Your task to perform on an android device: install app "Mercado Libre" Image 0: 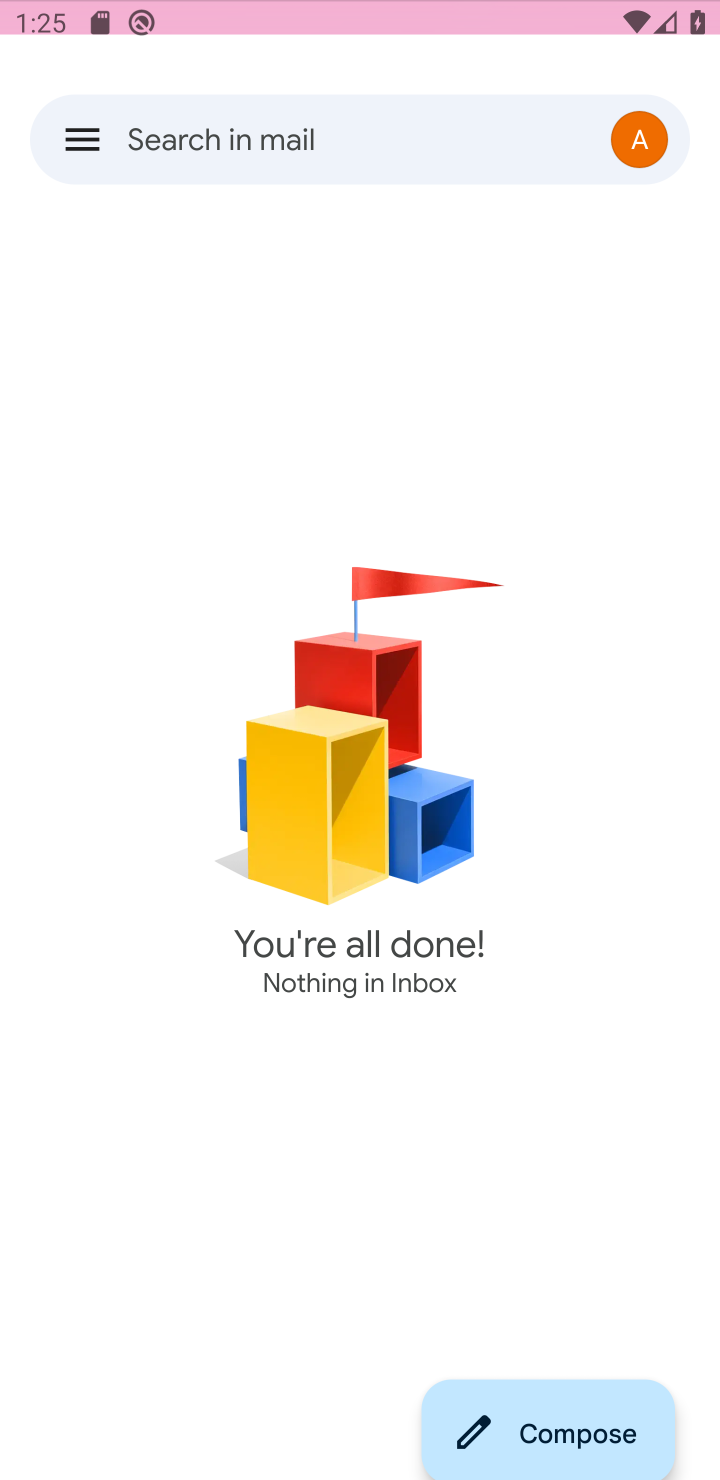
Step 0: click (259, 361)
Your task to perform on an android device: install app "Mercado Libre" Image 1: 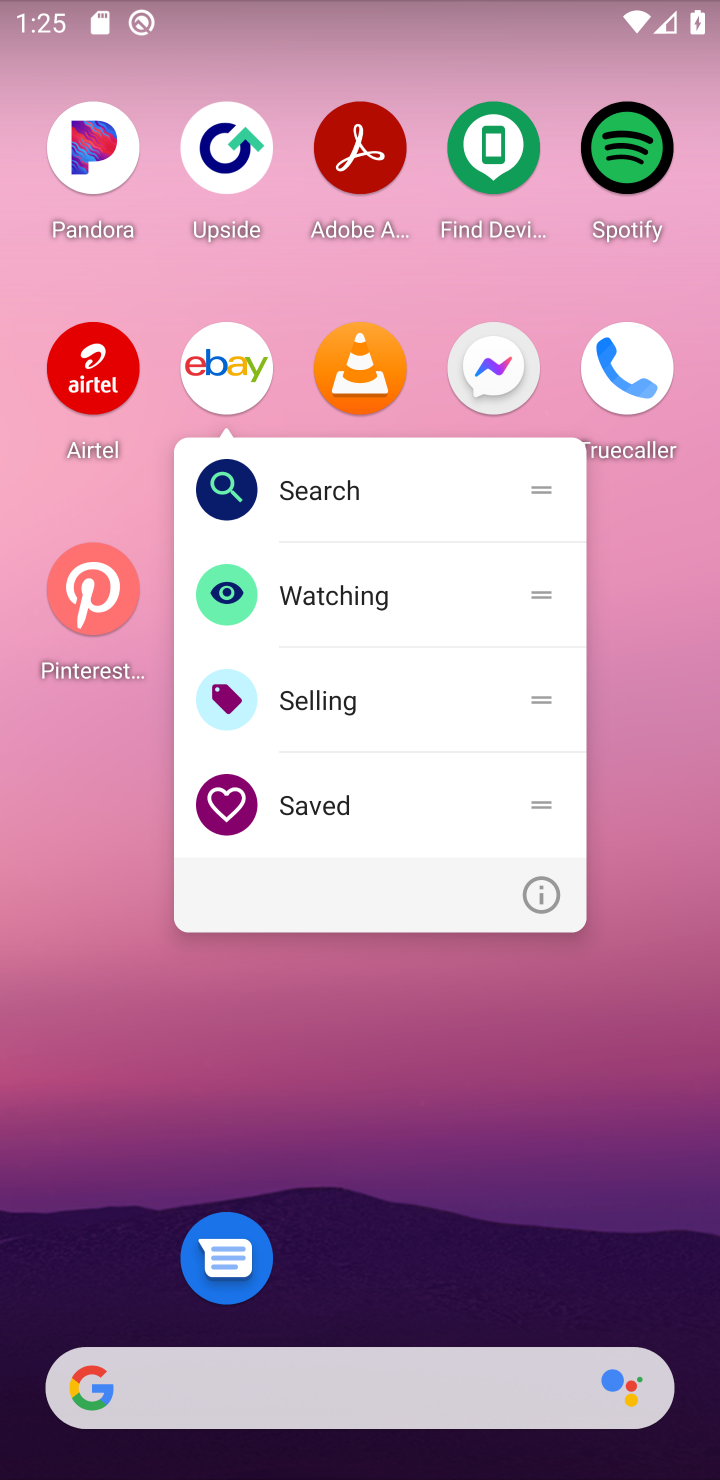
Step 1: drag from (363, 1261) to (479, 503)
Your task to perform on an android device: install app "Mercado Libre" Image 2: 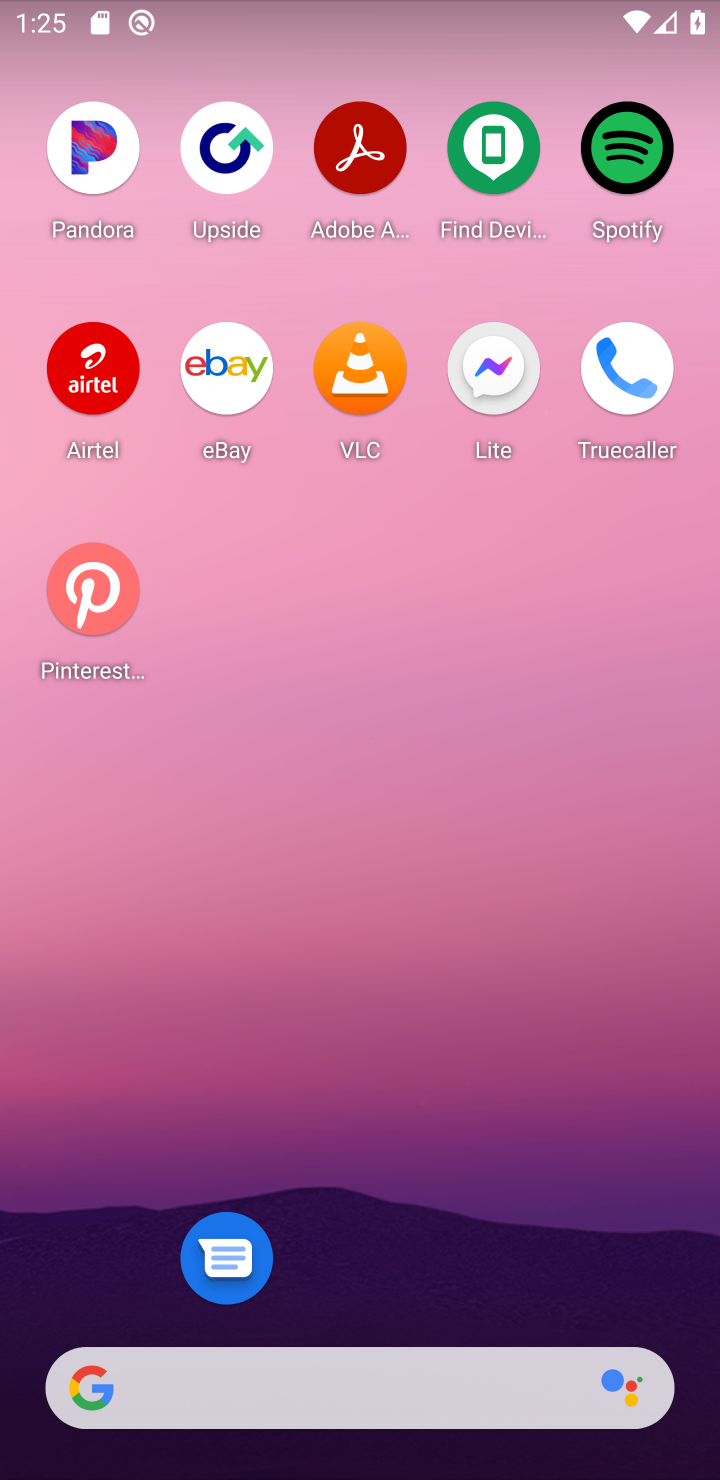
Step 2: drag from (206, 1175) to (492, 420)
Your task to perform on an android device: install app "Mercado Libre" Image 3: 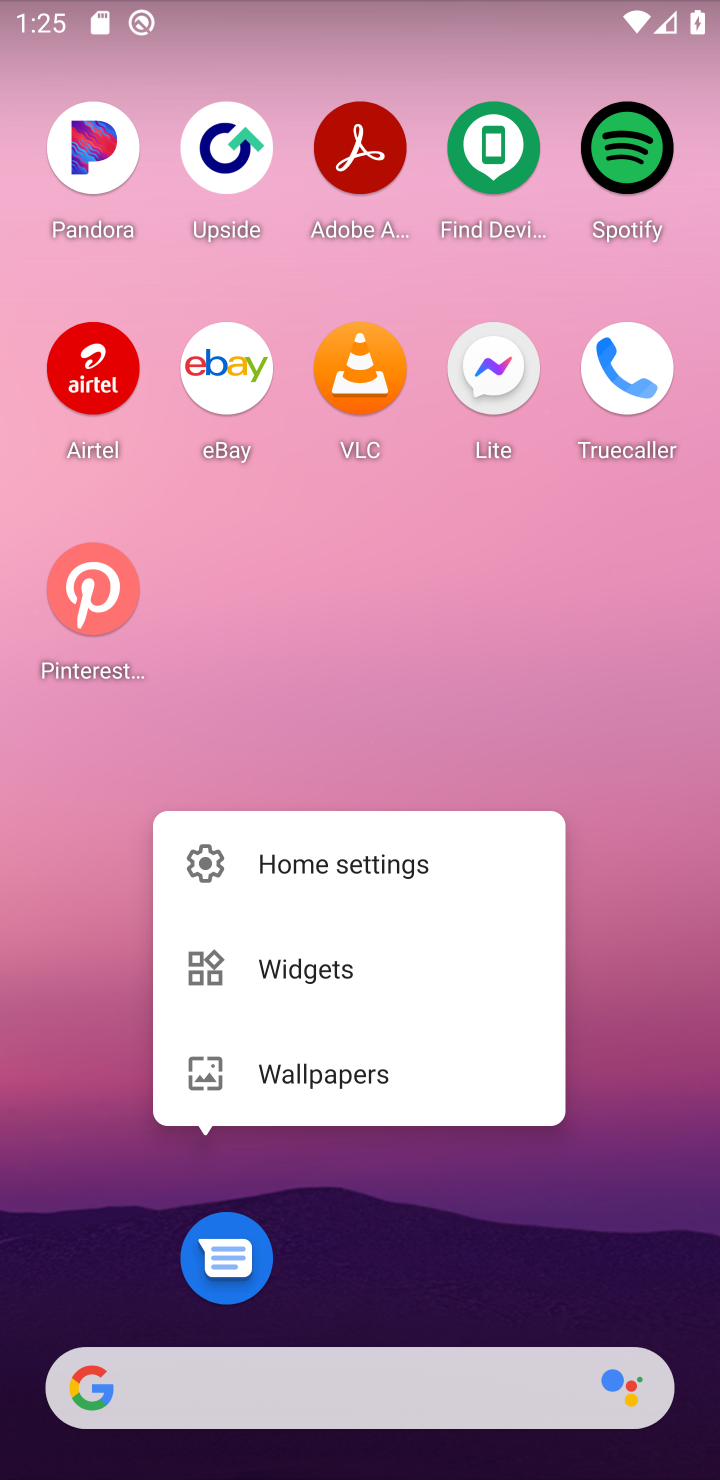
Step 3: click (292, 1156)
Your task to perform on an android device: install app "Mercado Libre" Image 4: 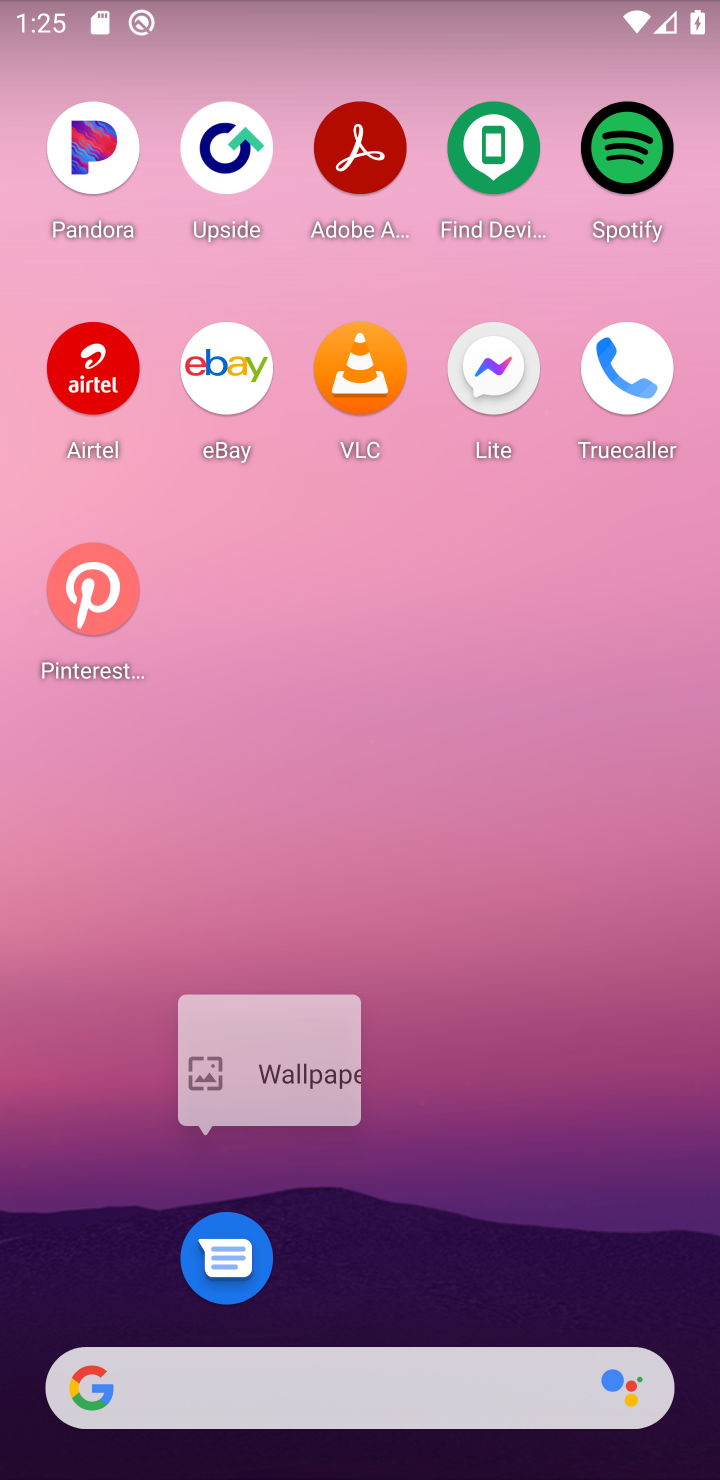
Step 4: drag from (364, 1265) to (554, 359)
Your task to perform on an android device: install app "Mercado Libre" Image 5: 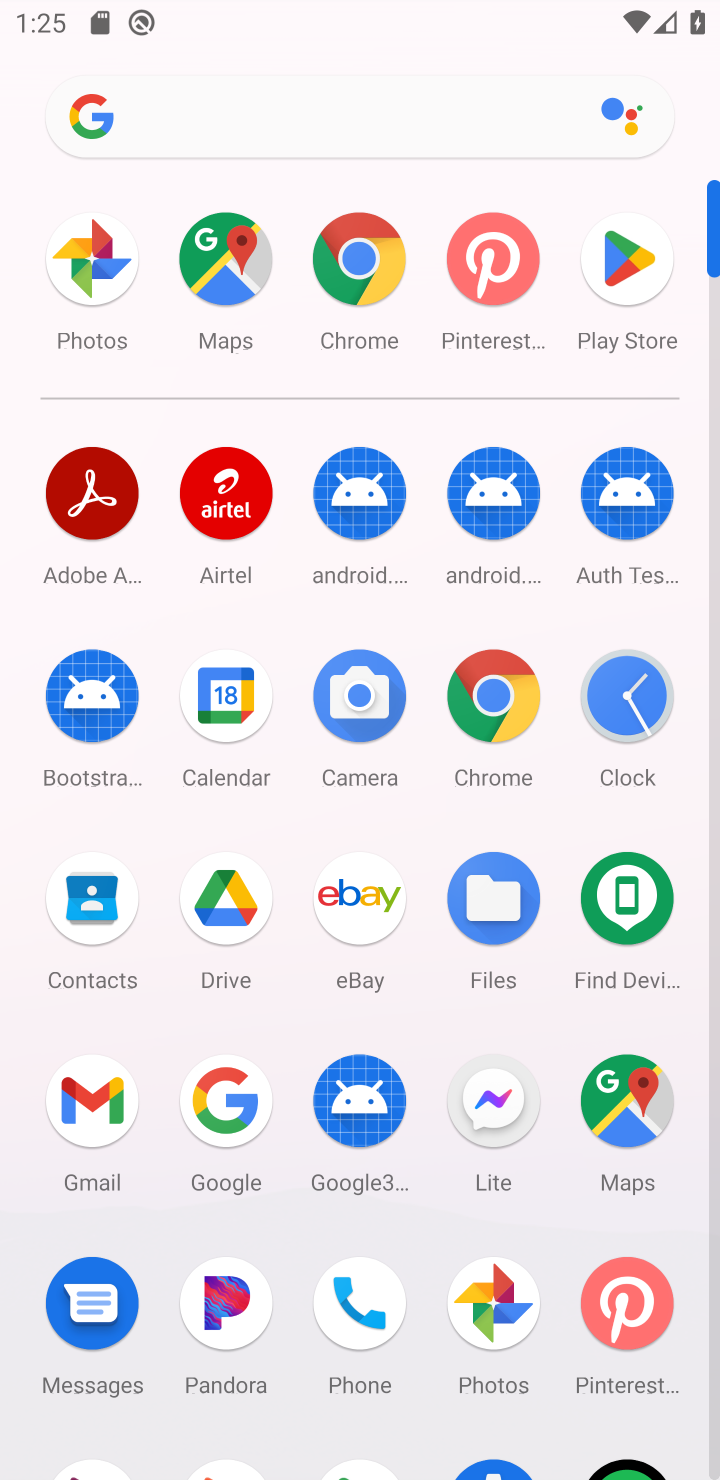
Step 5: click (593, 244)
Your task to perform on an android device: install app "Mercado Libre" Image 6: 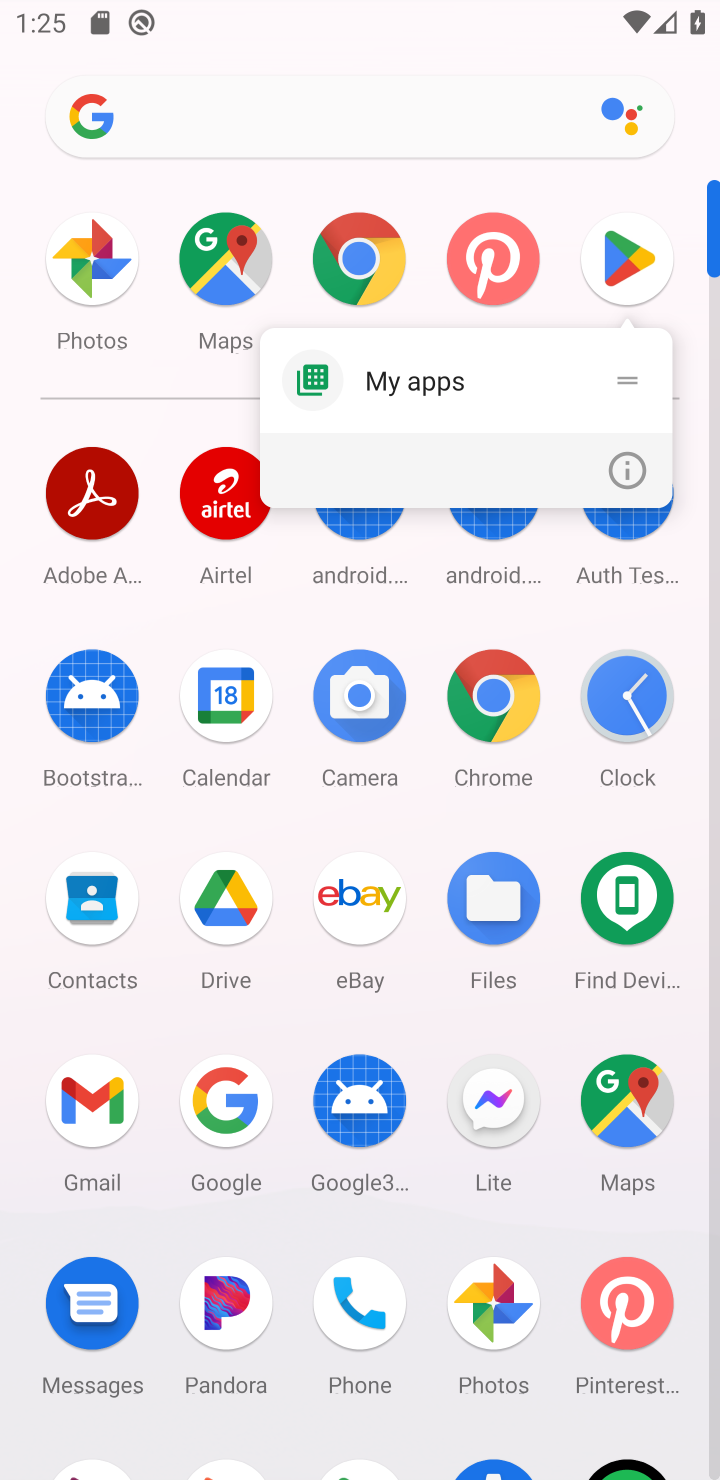
Step 6: click (611, 261)
Your task to perform on an android device: install app "Mercado Libre" Image 7: 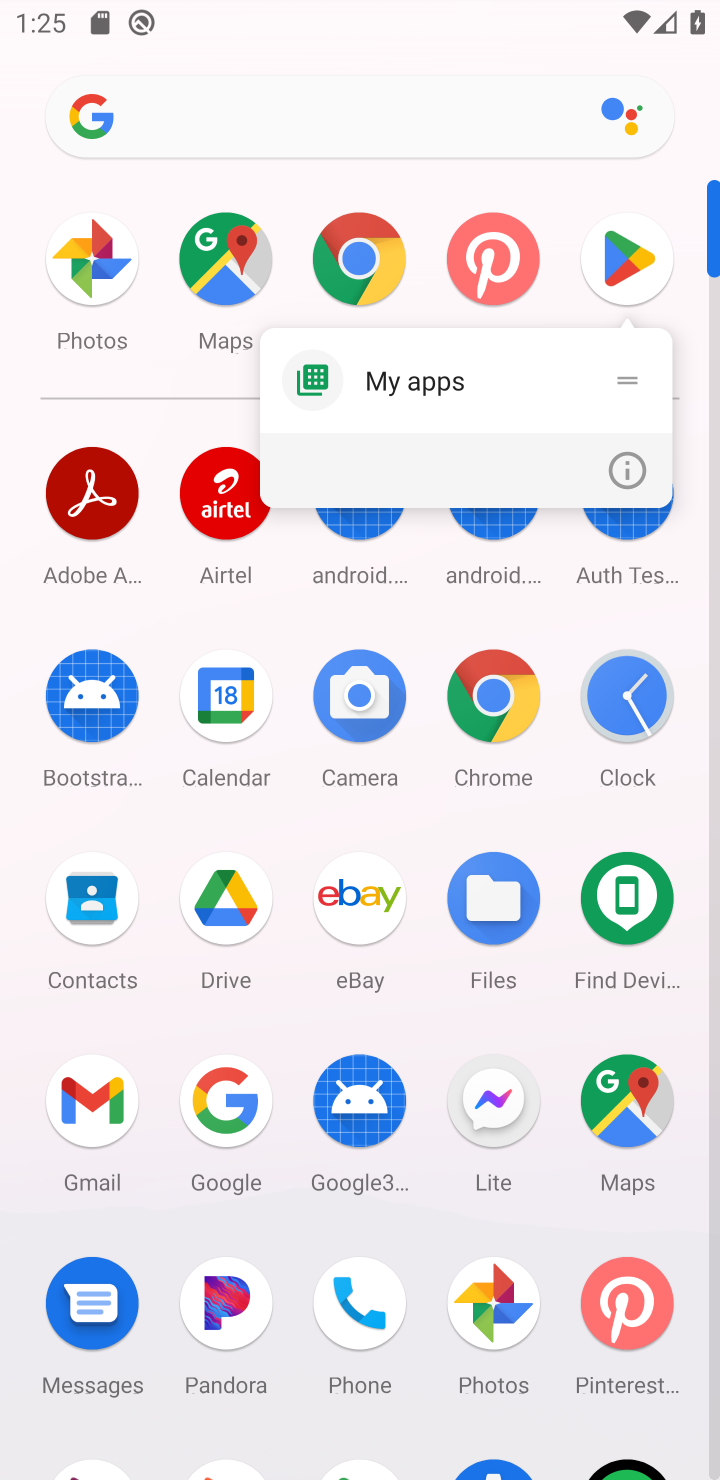
Step 7: drag from (202, 1147) to (380, 411)
Your task to perform on an android device: install app "Mercado Libre" Image 8: 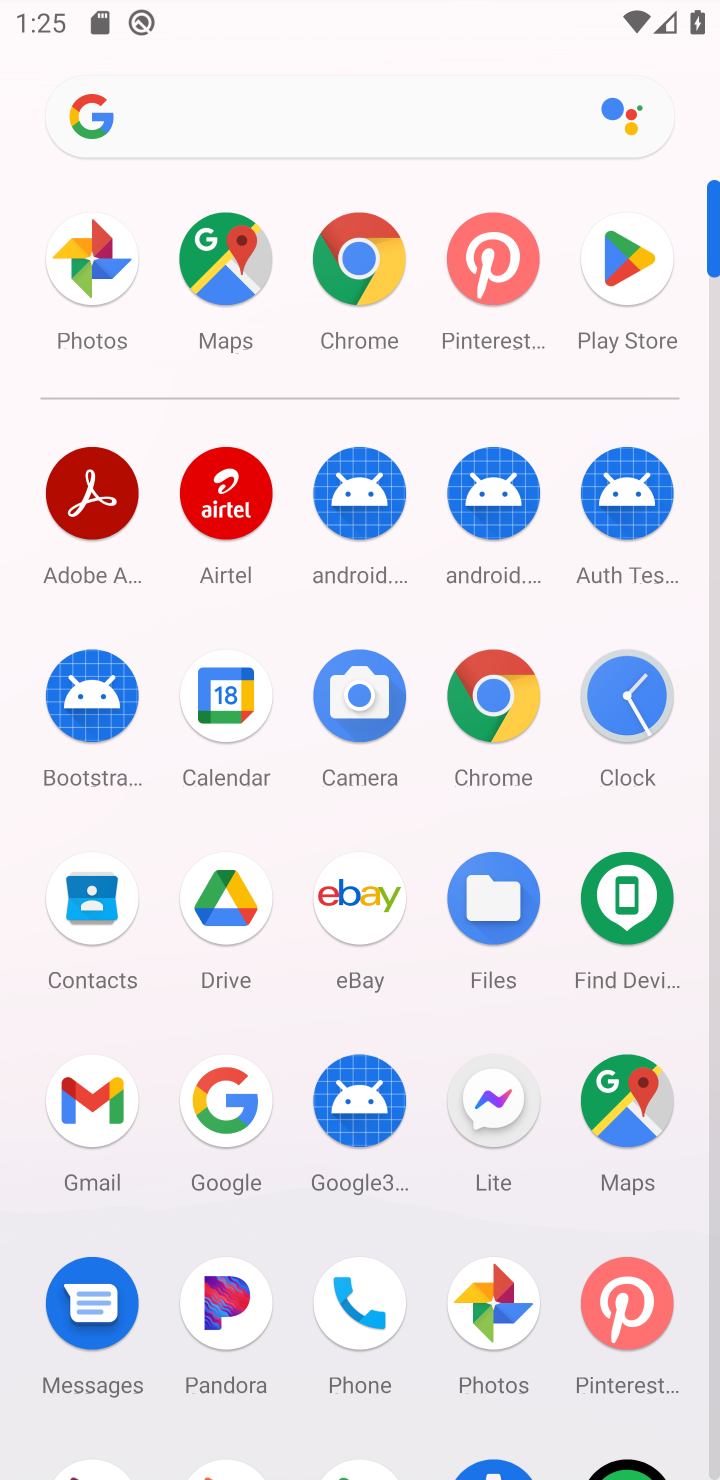
Step 8: drag from (337, 1200) to (471, 323)
Your task to perform on an android device: install app "Mercado Libre" Image 9: 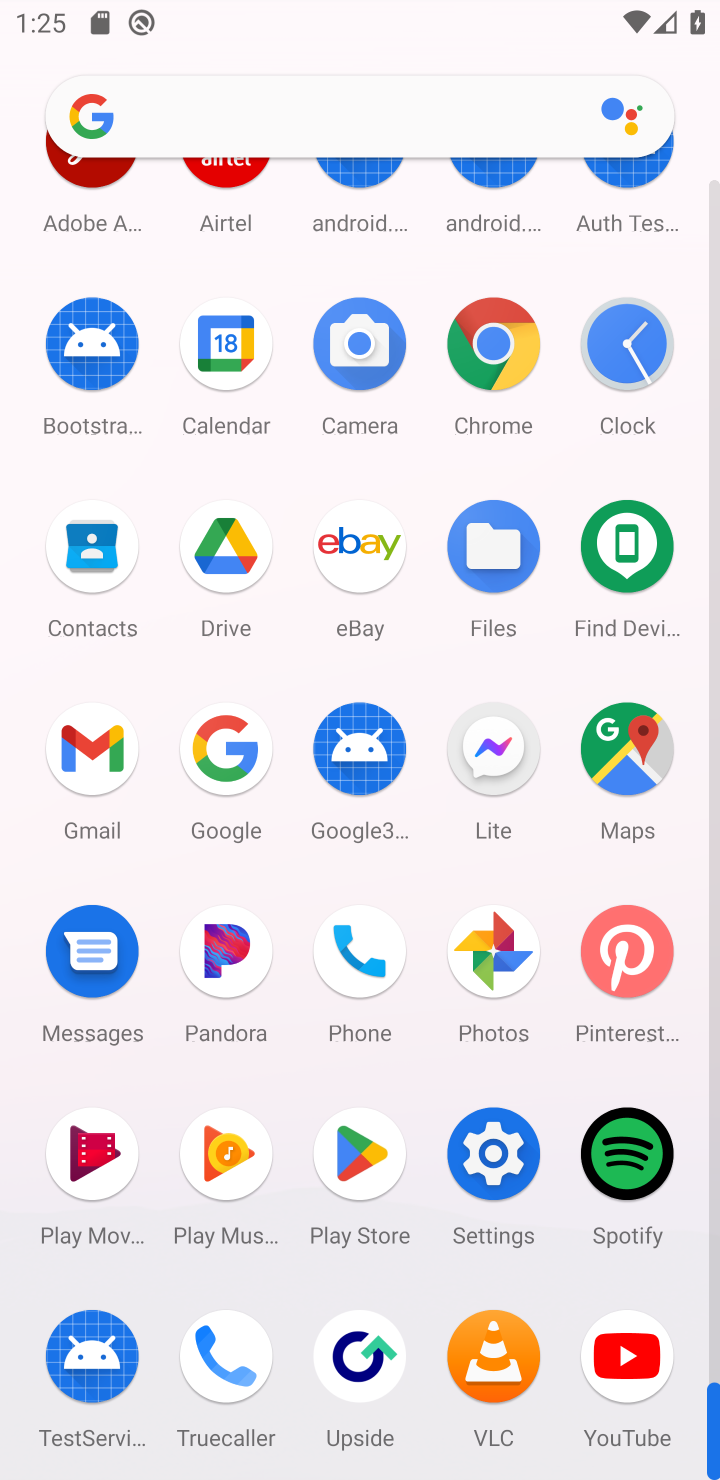
Step 9: click (348, 1150)
Your task to perform on an android device: install app "Mercado Libre" Image 10: 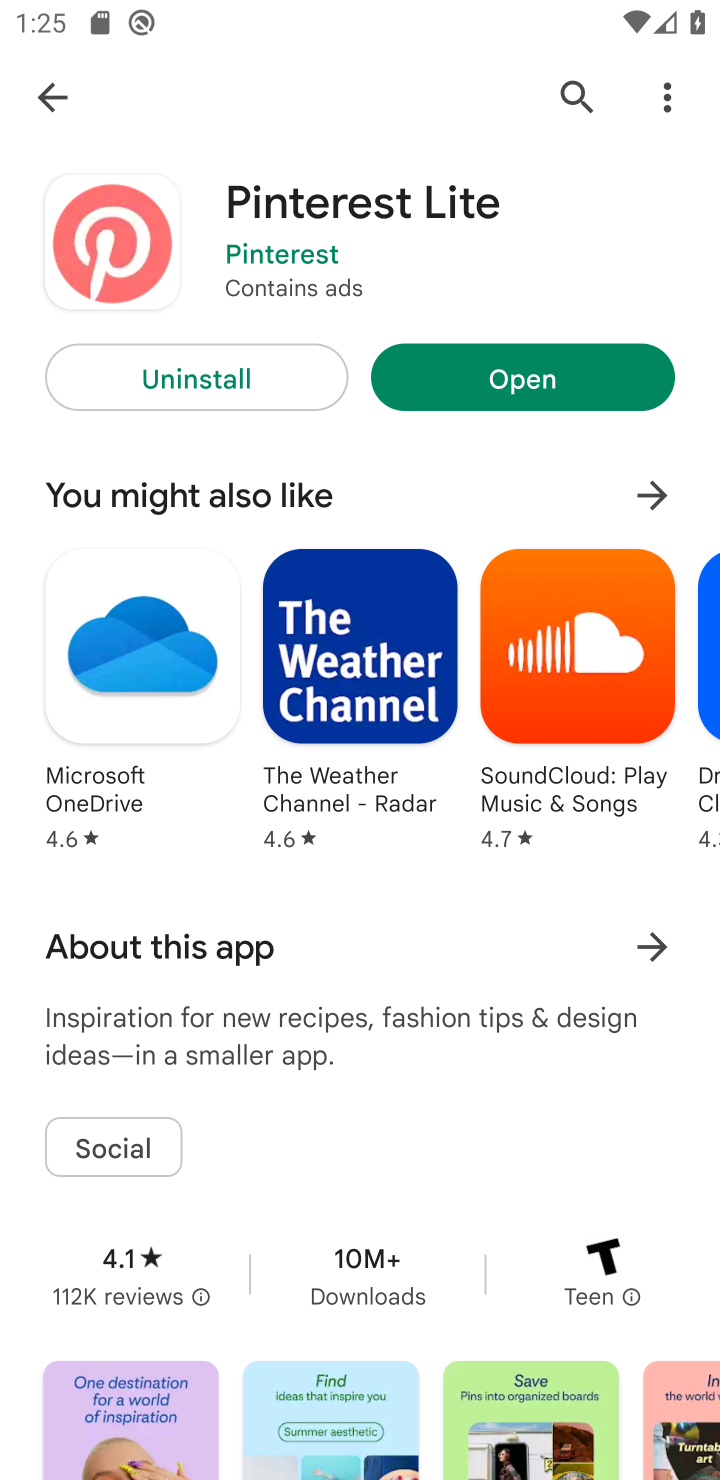
Step 10: click (46, 75)
Your task to perform on an android device: install app "Mercado Libre" Image 11: 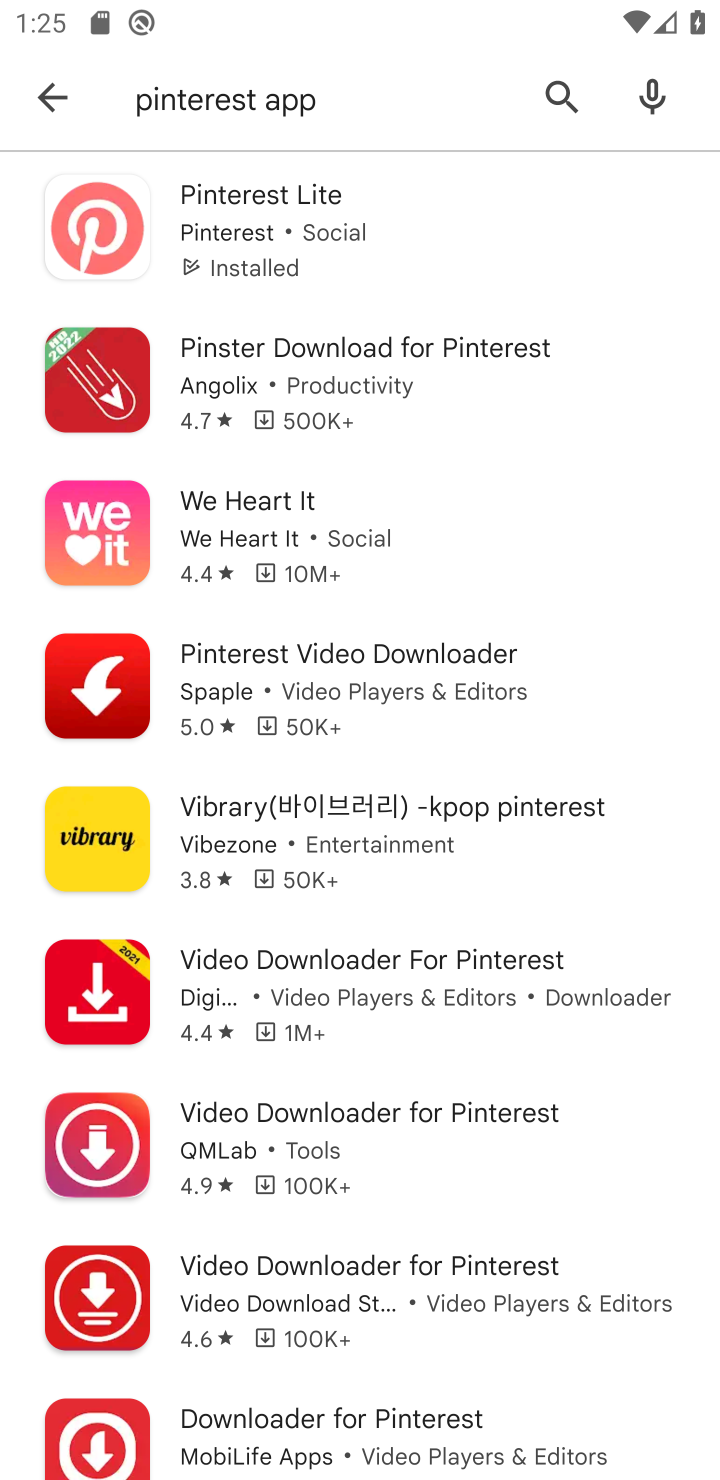
Step 11: click (569, 77)
Your task to perform on an android device: install app "Mercado Libre" Image 12: 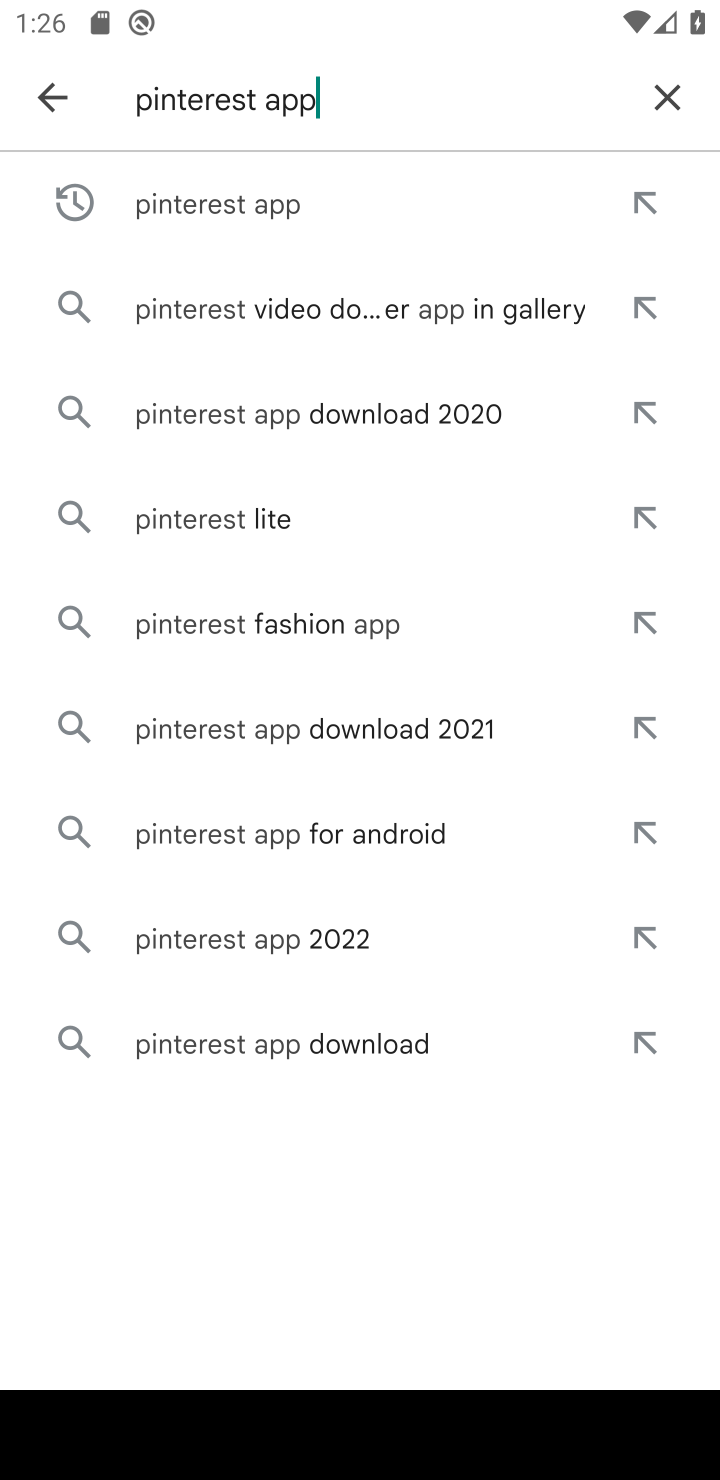
Step 12: click (668, 82)
Your task to perform on an android device: install app "Mercado Libre" Image 13: 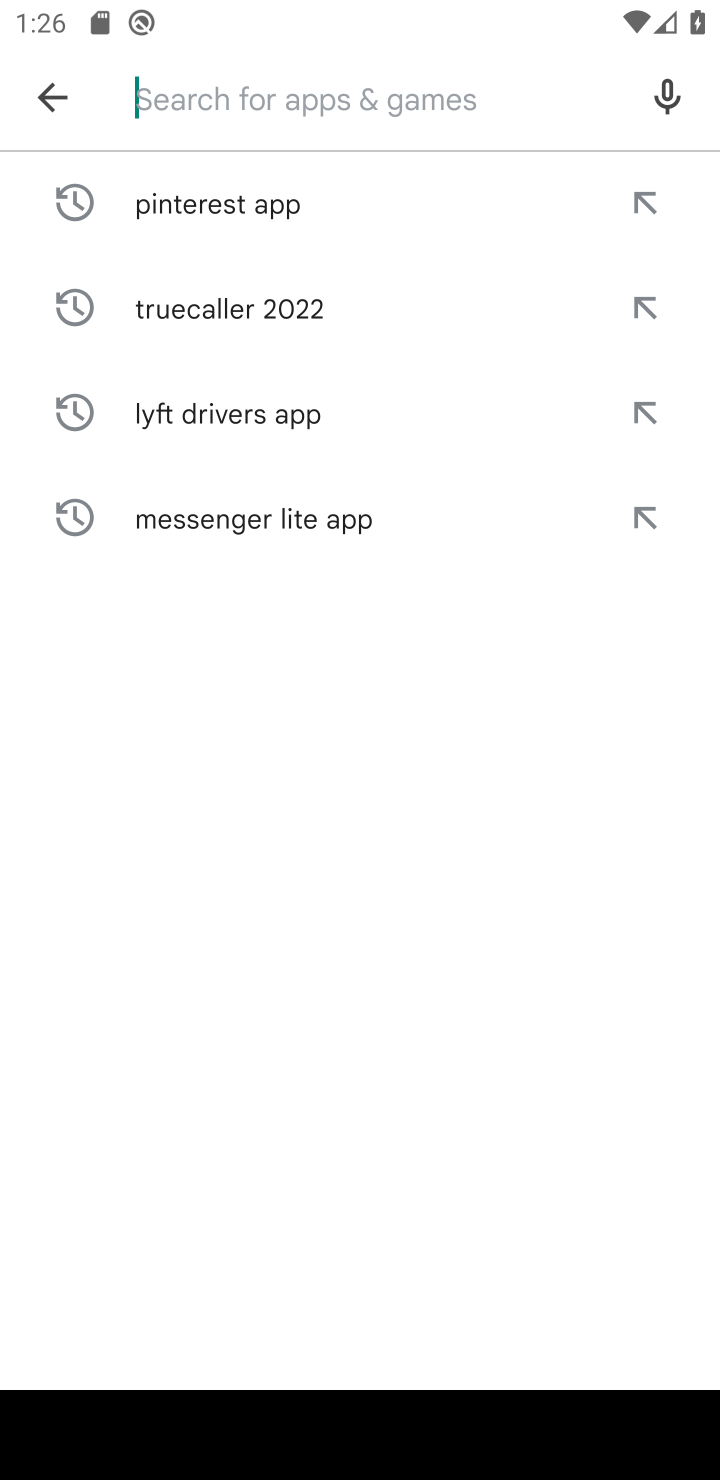
Step 13: click (425, 81)
Your task to perform on an android device: install app "Mercado Libre" Image 14: 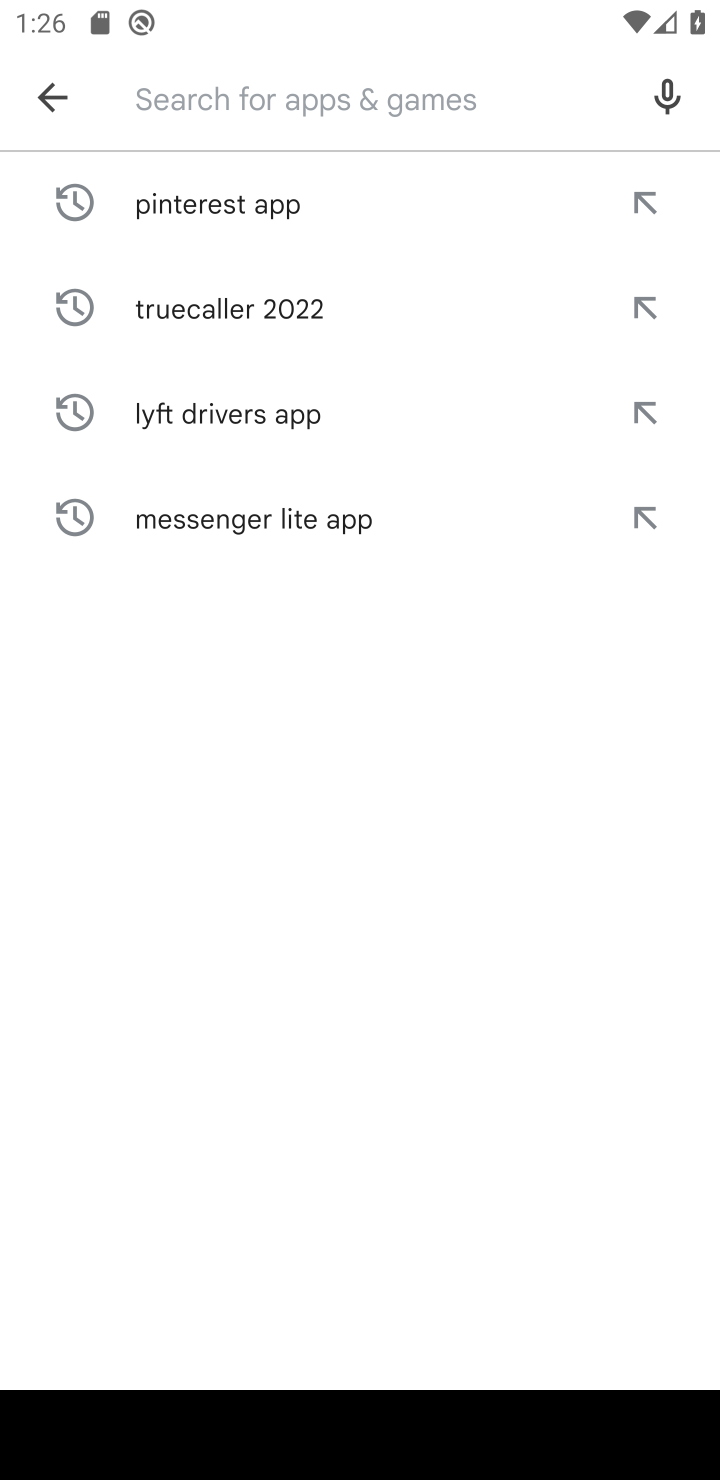
Step 14: type "Mercado Libre "
Your task to perform on an android device: install app "Mercado Libre" Image 15: 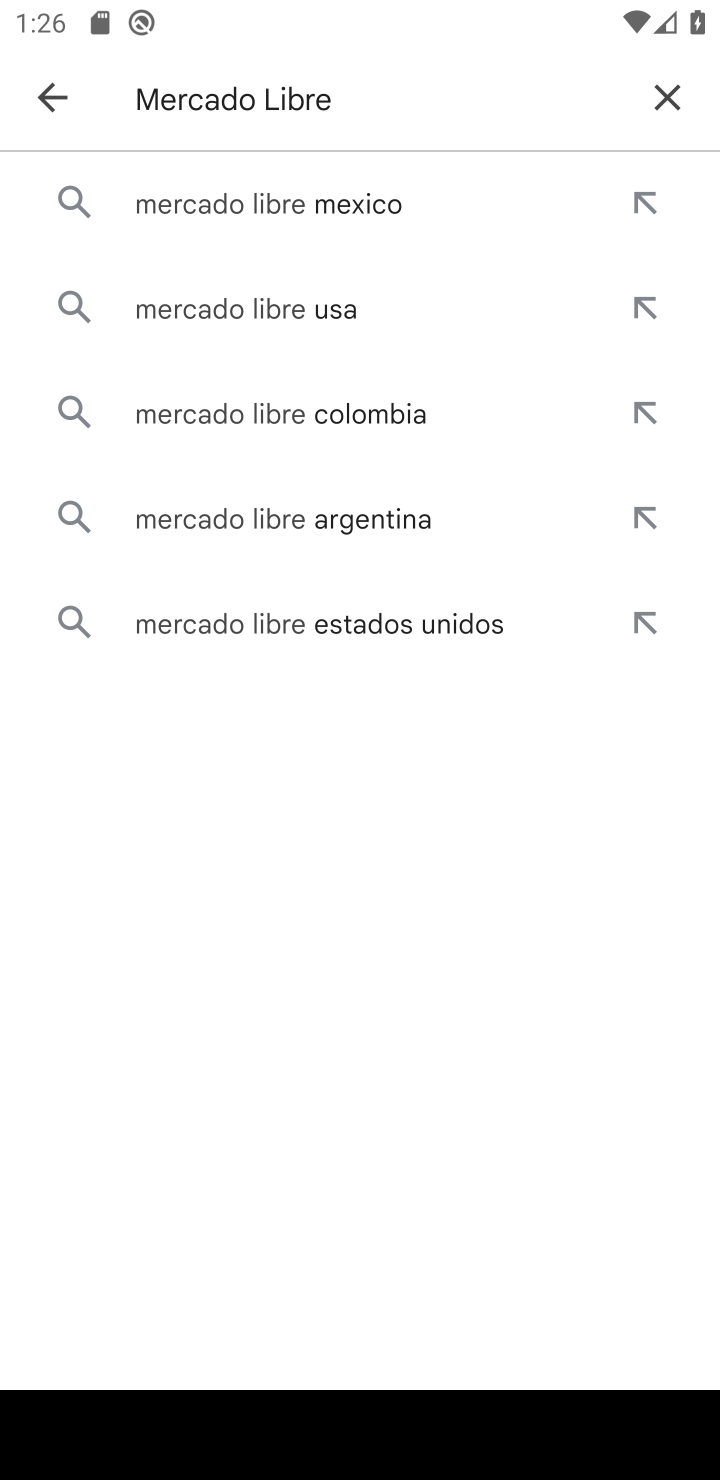
Step 15: click (333, 334)
Your task to perform on an android device: install app "Mercado Libre" Image 16: 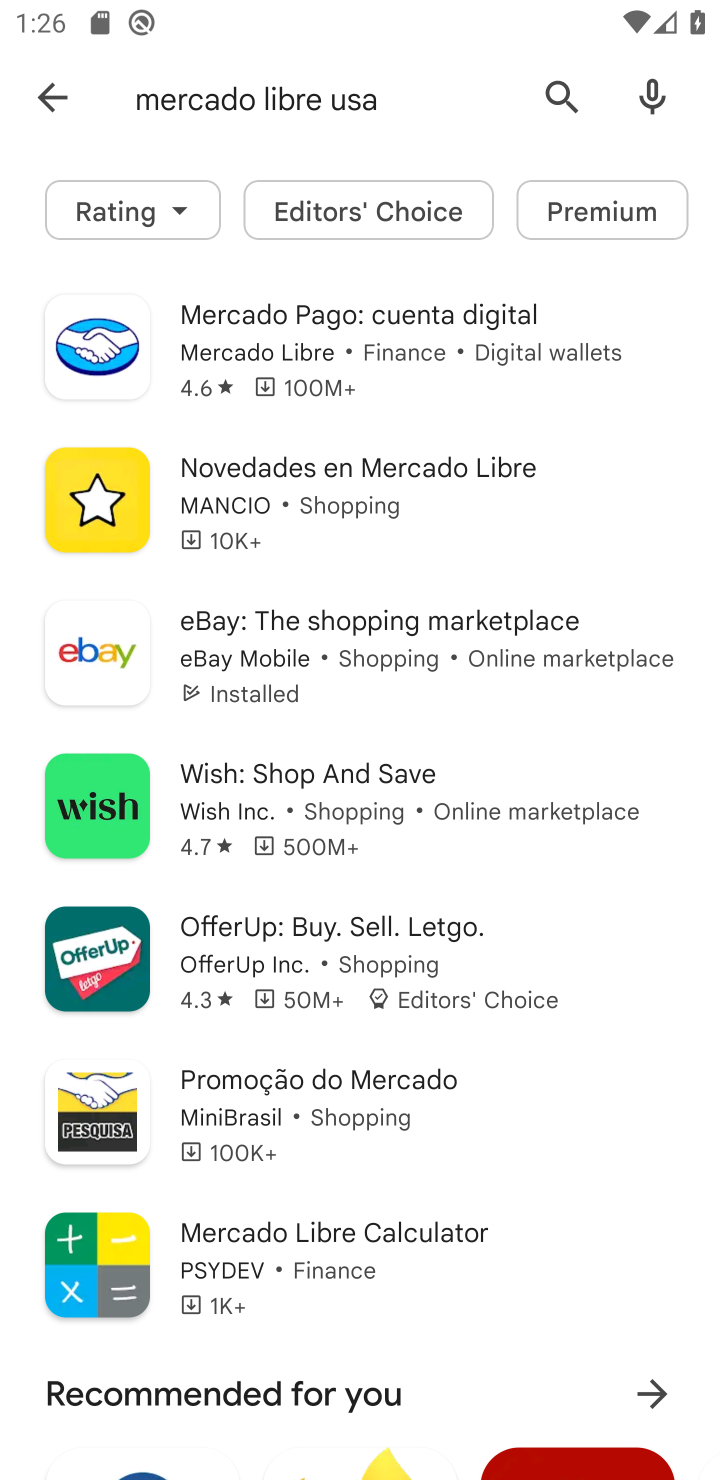
Step 16: task complete